Your task to perform on an android device: change keyboard looks Image 0: 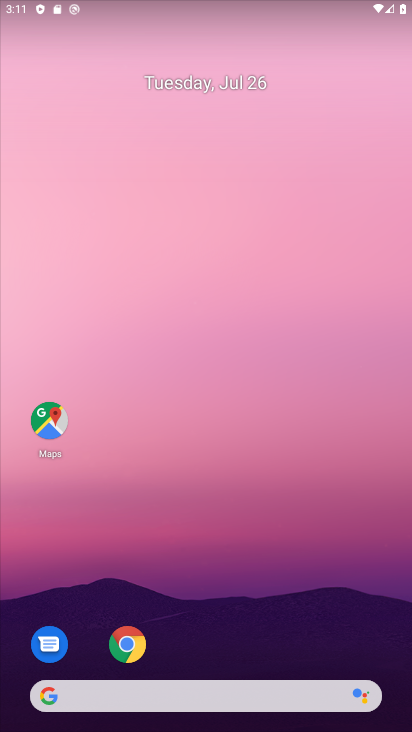
Step 0: drag from (253, 642) to (277, 18)
Your task to perform on an android device: change keyboard looks Image 1: 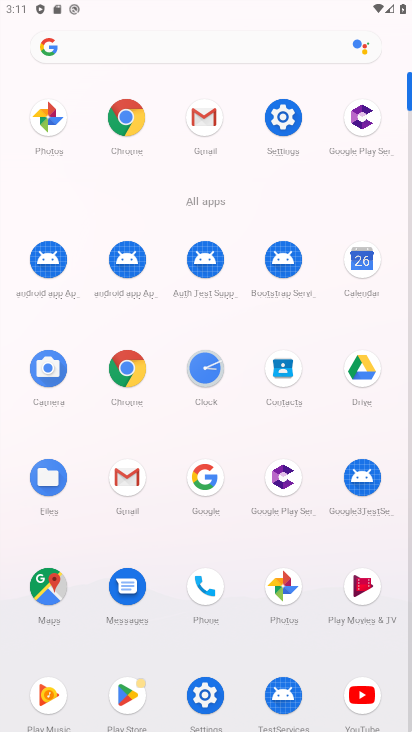
Step 1: click (276, 125)
Your task to perform on an android device: change keyboard looks Image 2: 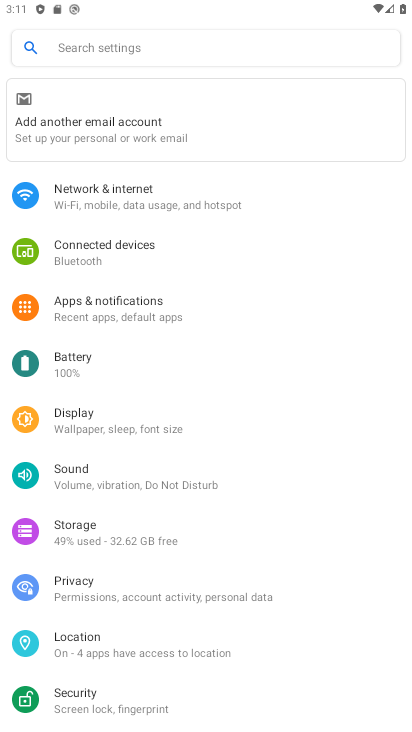
Step 2: drag from (185, 709) to (137, 118)
Your task to perform on an android device: change keyboard looks Image 3: 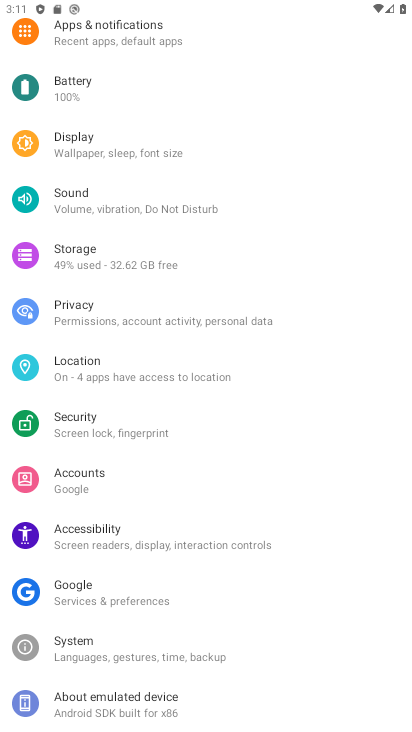
Step 3: click (170, 661)
Your task to perform on an android device: change keyboard looks Image 4: 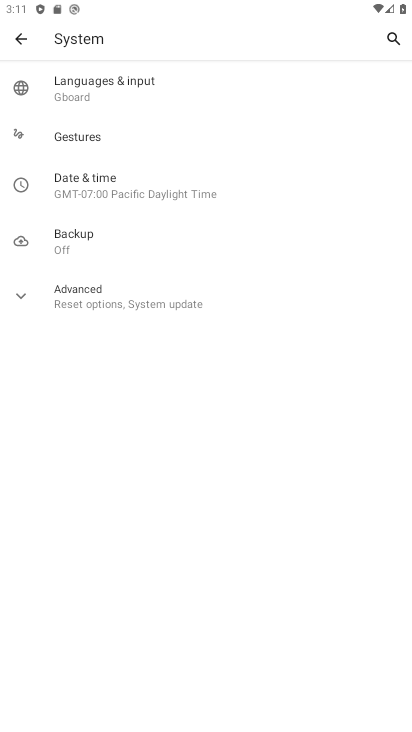
Step 4: click (139, 94)
Your task to perform on an android device: change keyboard looks Image 5: 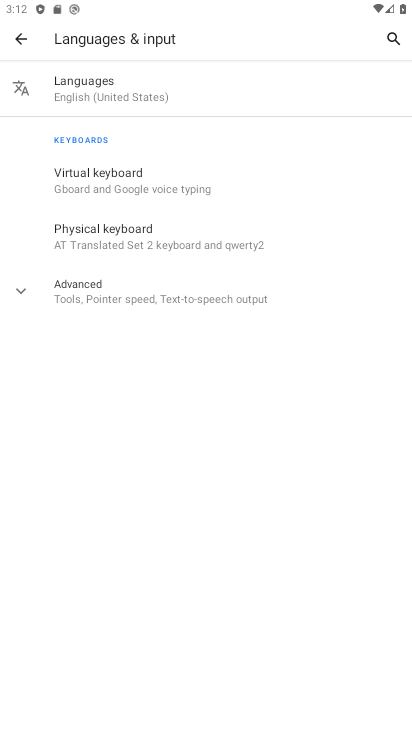
Step 5: click (147, 177)
Your task to perform on an android device: change keyboard looks Image 6: 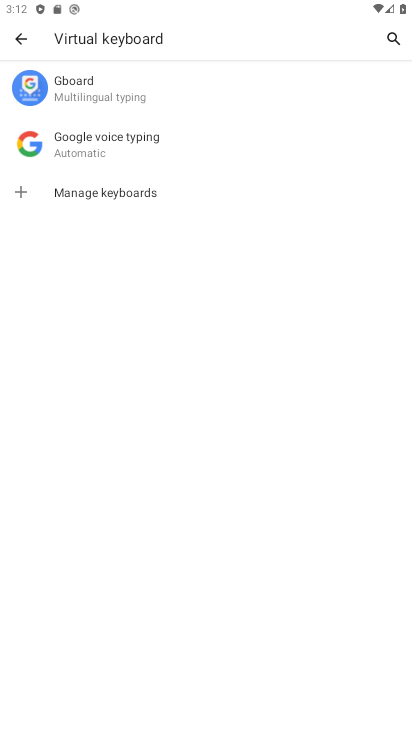
Step 6: click (146, 83)
Your task to perform on an android device: change keyboard looks Image 7: 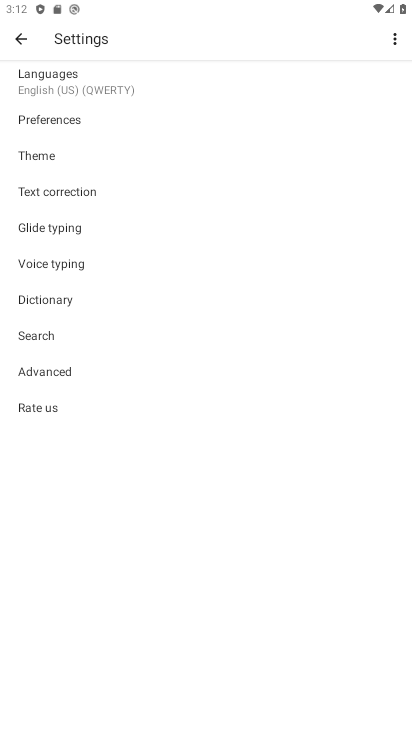
Step 7: click (113, 153)
Your task to perform on an android device: change keyboard looks Image 8: 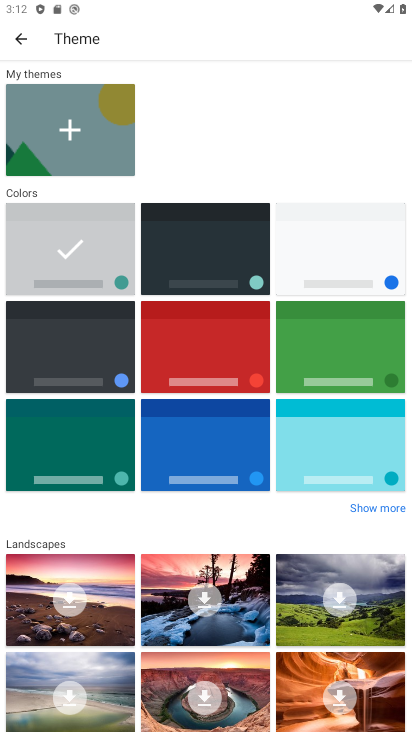
Step 8: click (169, 218)
Your task to perform on an android device: change keyboard looks Image 9: 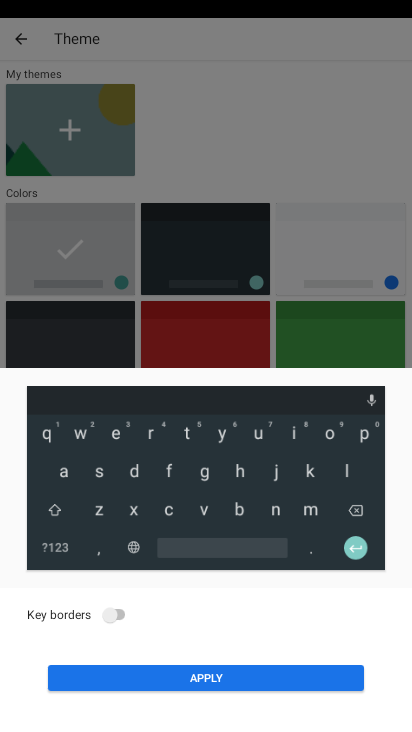
Step 9: click (298, 667)
Your task to perform on an android device: change keyboard looks Image 10: 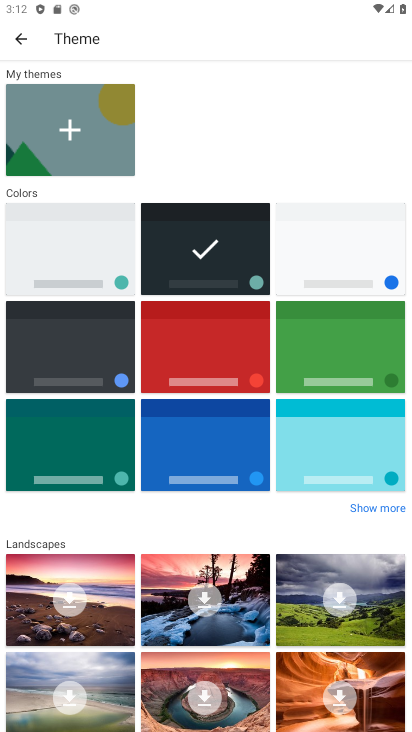
Step 10: task complete